Your task to perform on an android device: Play the last video I watched on Youtube Image 0: 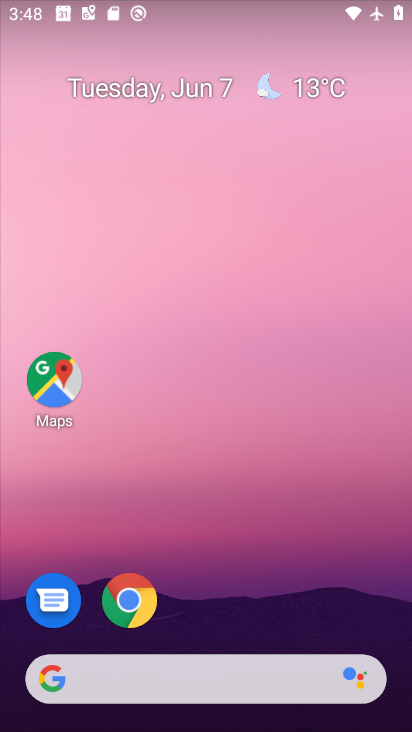
Step 0: drag from (291, 609) to (262, 168)
Your task to perform on an android device: Play the last video I watched on Youtube Image 1: 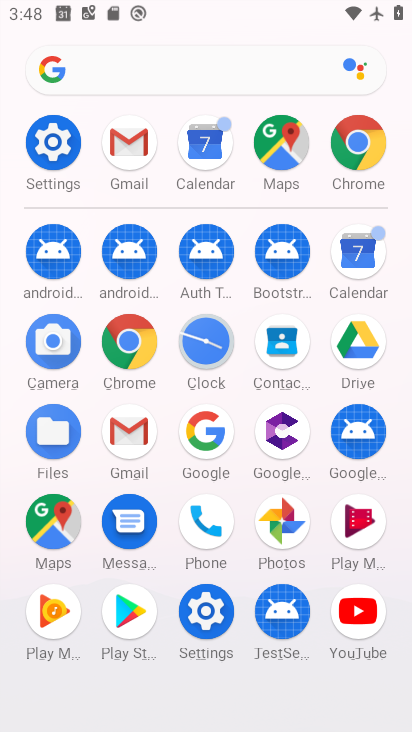
Step 1: click (377, 604)
Your task to perform on an android device: Play the last video I watched on Youtube Image 2: 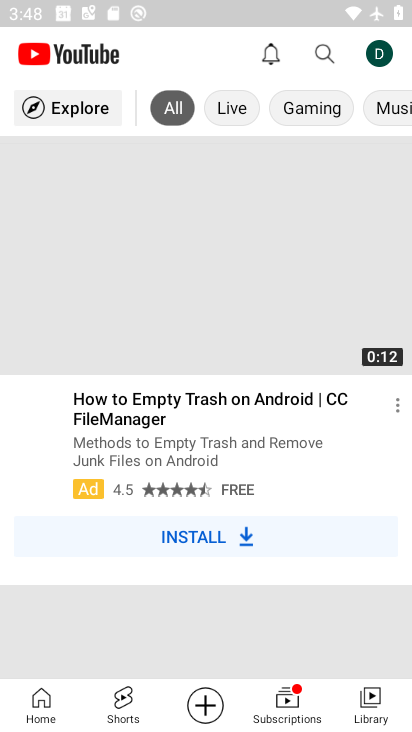
Step 2: click (360, 700)
Your task to perform on an android device: Play the last video I watched on Youtube Image 3: 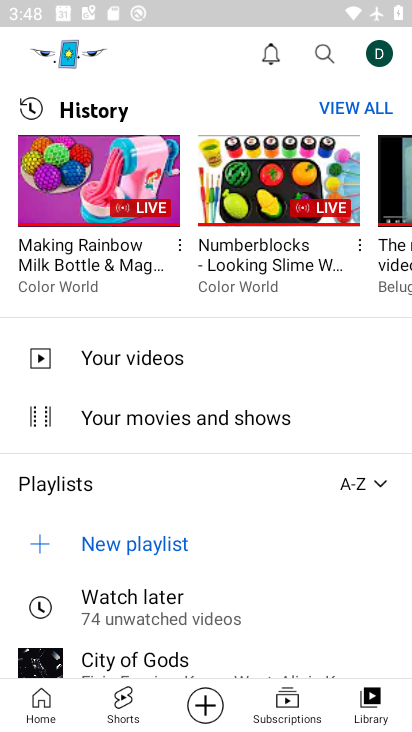
Step 3: click (99, 198)
Your task to perform on an android device: Play the last video I watched on Youtube Image 4: 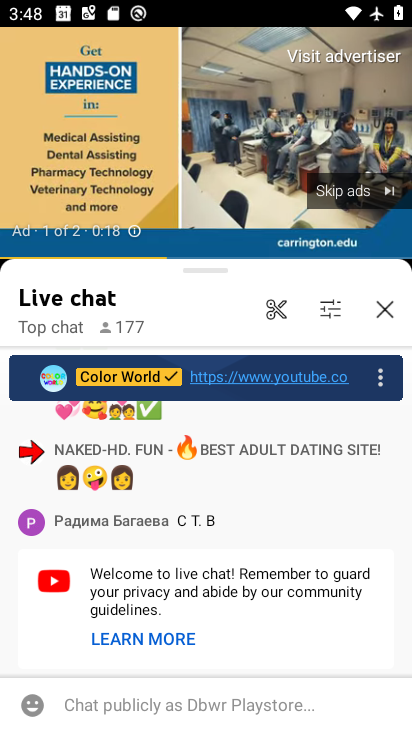
Step 4: click (349, 193)
Your task to perform on an android device: Play the last video I watched on Youtube Image 5: 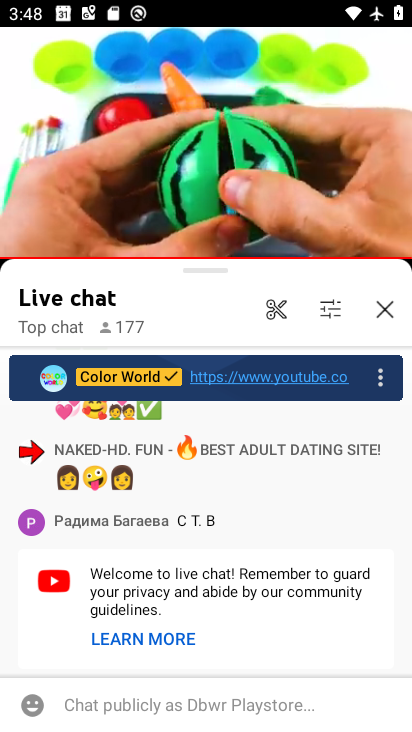
Step 5: task complete